Your task to perform on an android device: open chrome and create a bookmark for the current page Image 0: 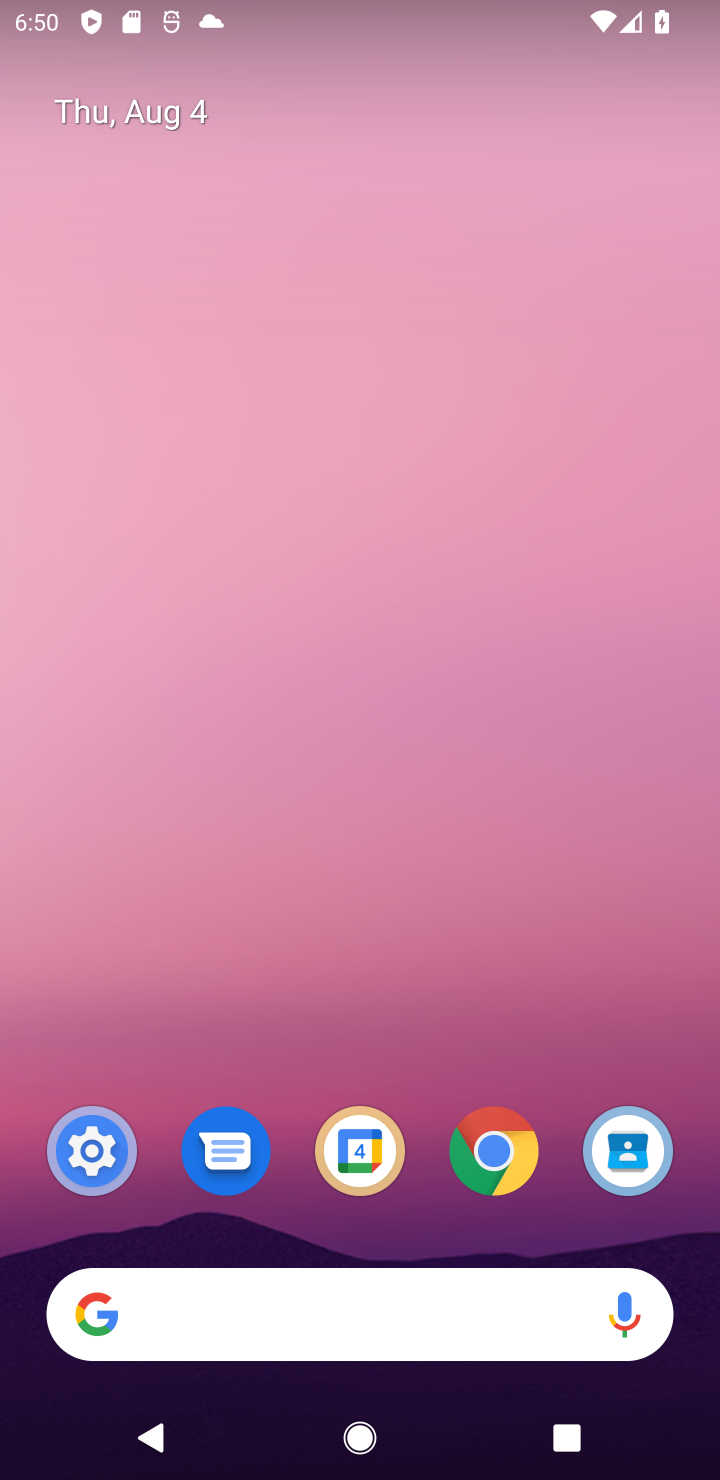
Step 0: click (514, 1165)
Your task to perform on an android device: open chrome and create a bookmark for the current page Image 1: 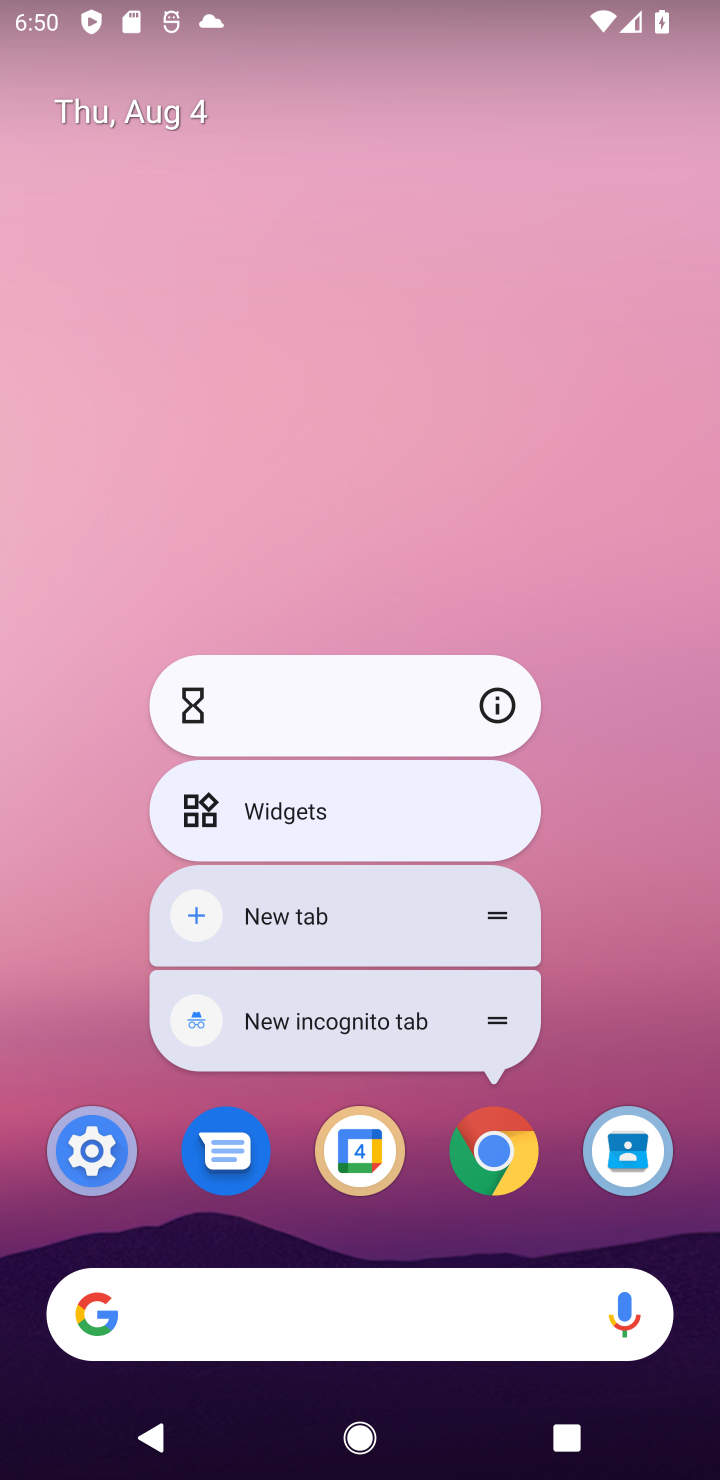
Step 1: click (480, 1151)
Your task to perform on an android device: open chrome and create a bookmark for the current page Image 2: 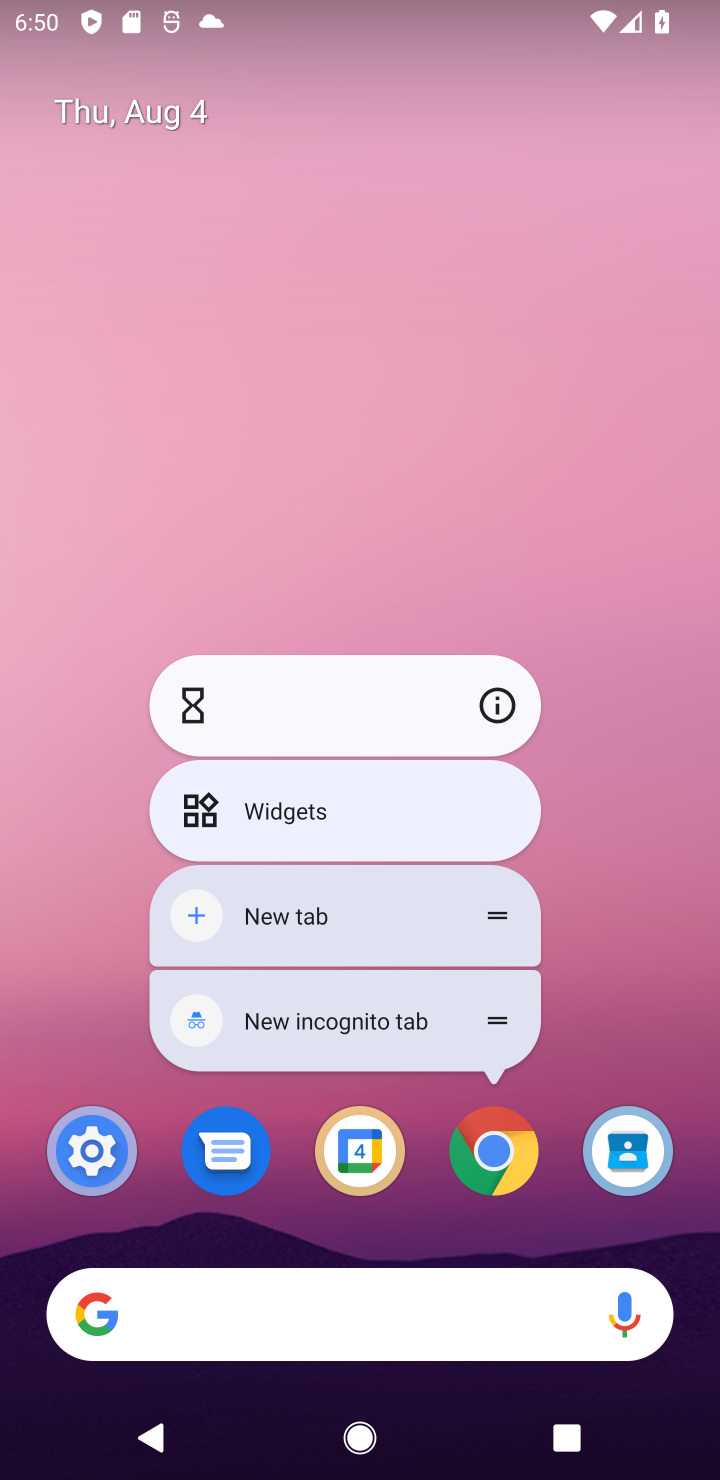
Step 2: click (478, 1153)
Your task to perform on an android device: open chrome and create a bookmark for the current page Image 3: 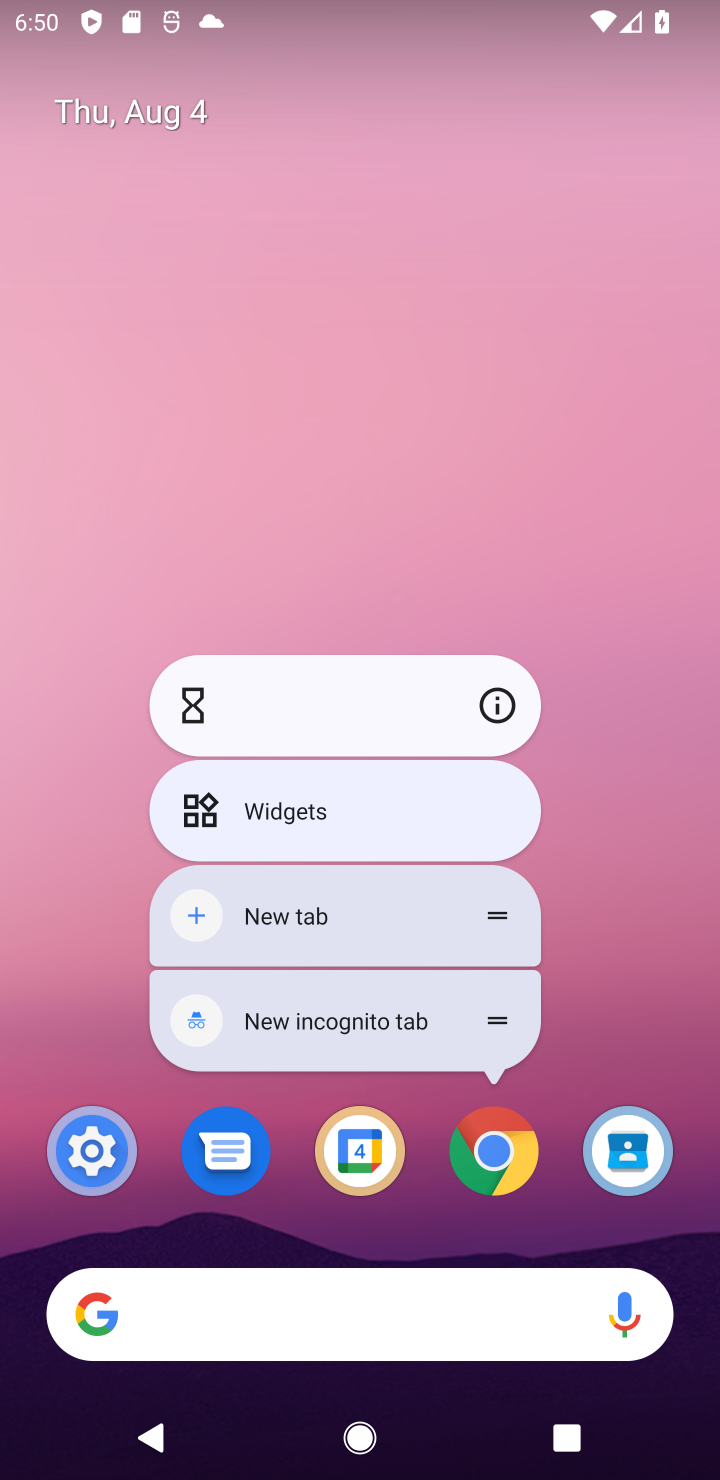
Step 3: click (510, 1147)
Your task to perform on an android device: open chrome and create a bookmark for the current page Image 4: 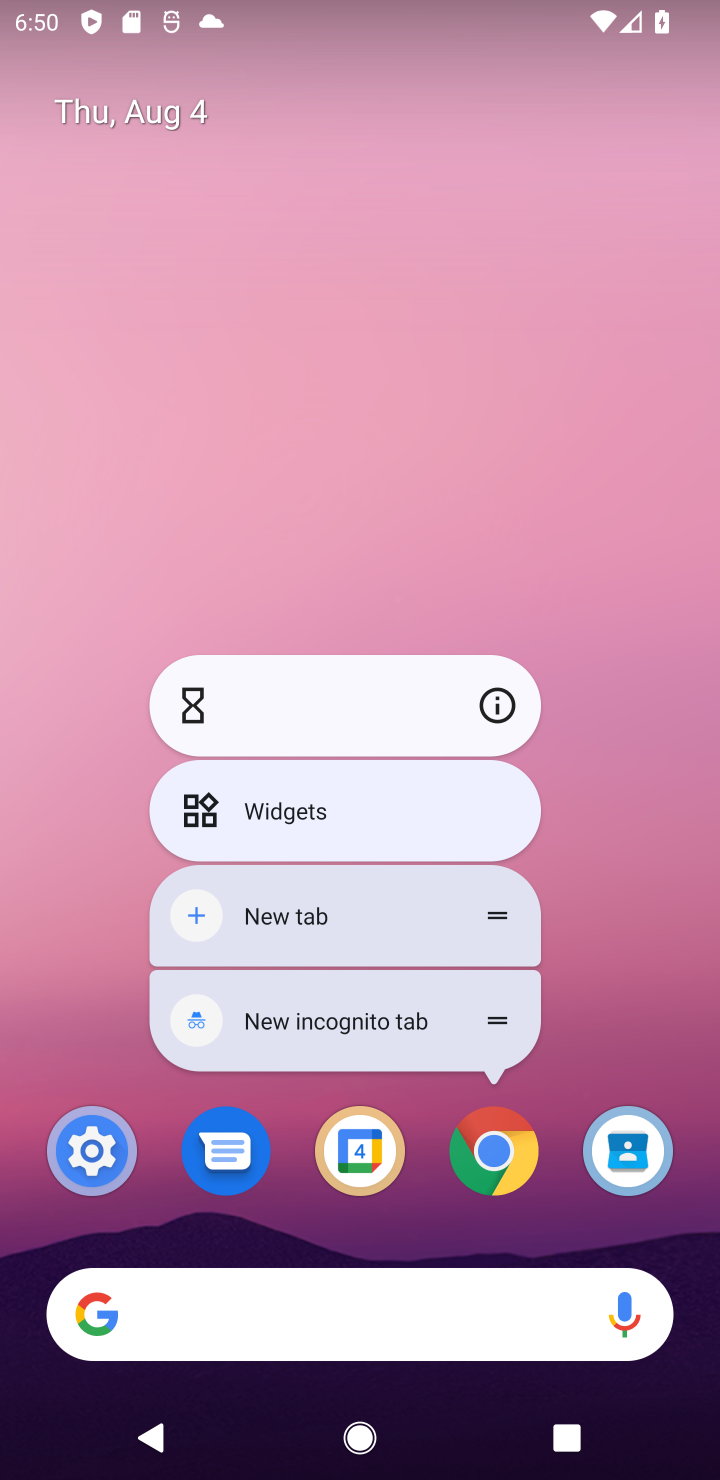
Step 4: click (522, 1155)
Your task to perform on an android device: open chrome and create a bookmark for the current page Image 5: 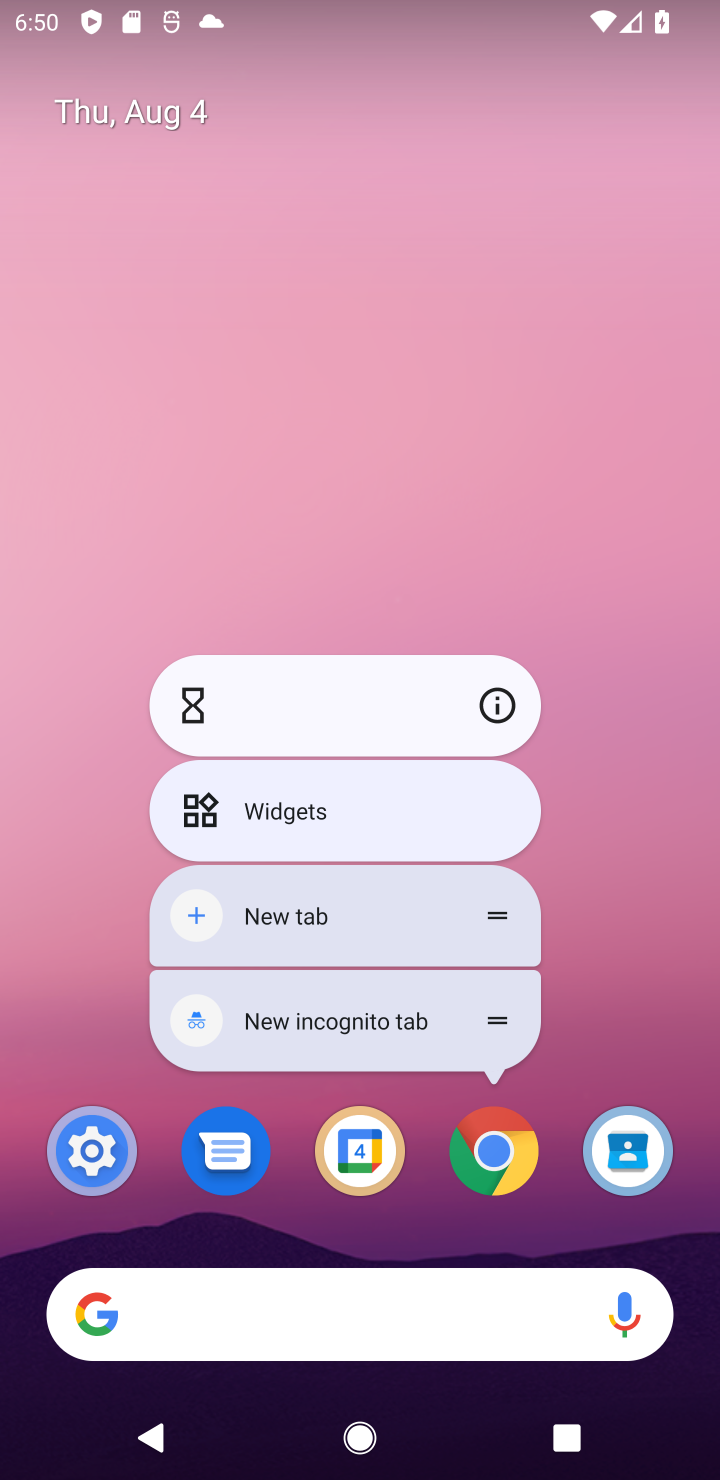
Step 5: click (524, 1155)
Your task to perform on an android device: open chrome and create a bookmark for the current page Image 6: 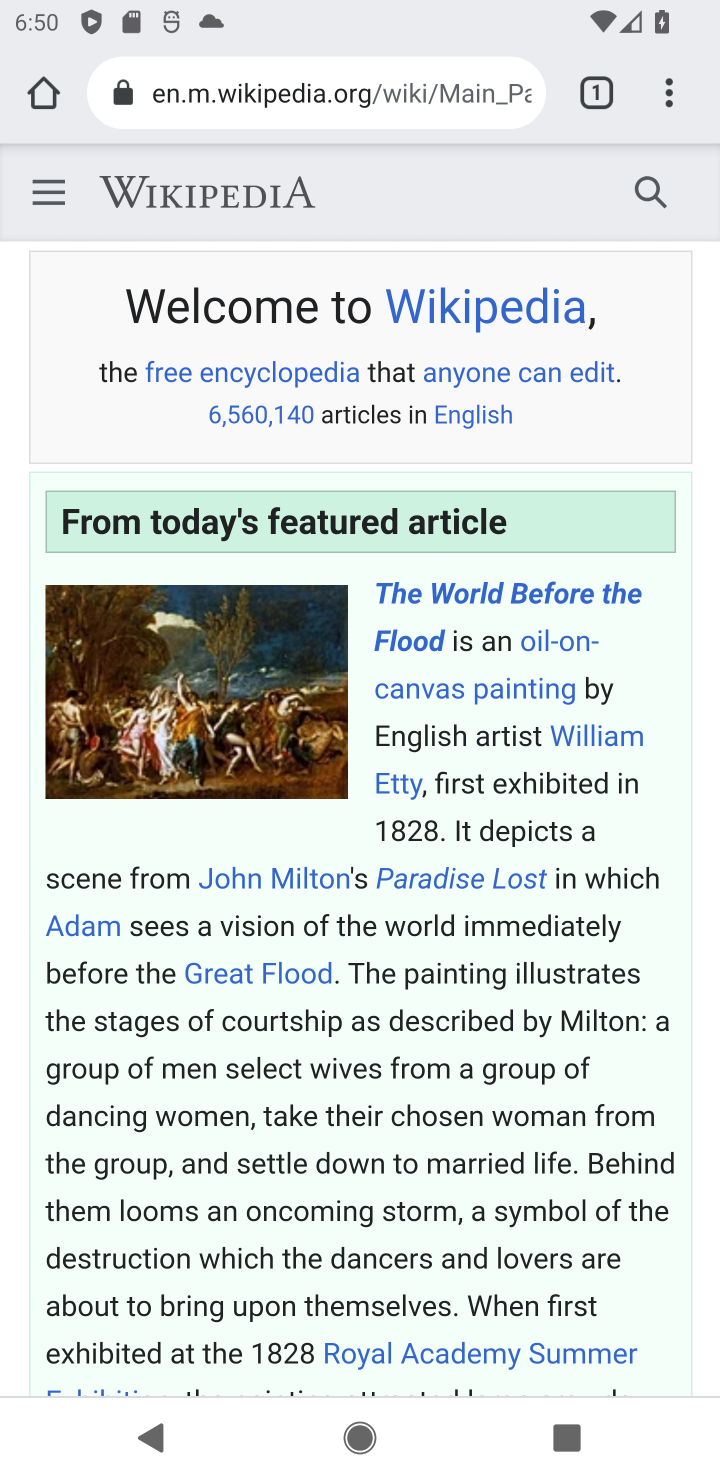
Step 6: click (668, 94)
Your task to perform on an android device: open chrome and create a bookmark for the current page Image 7: 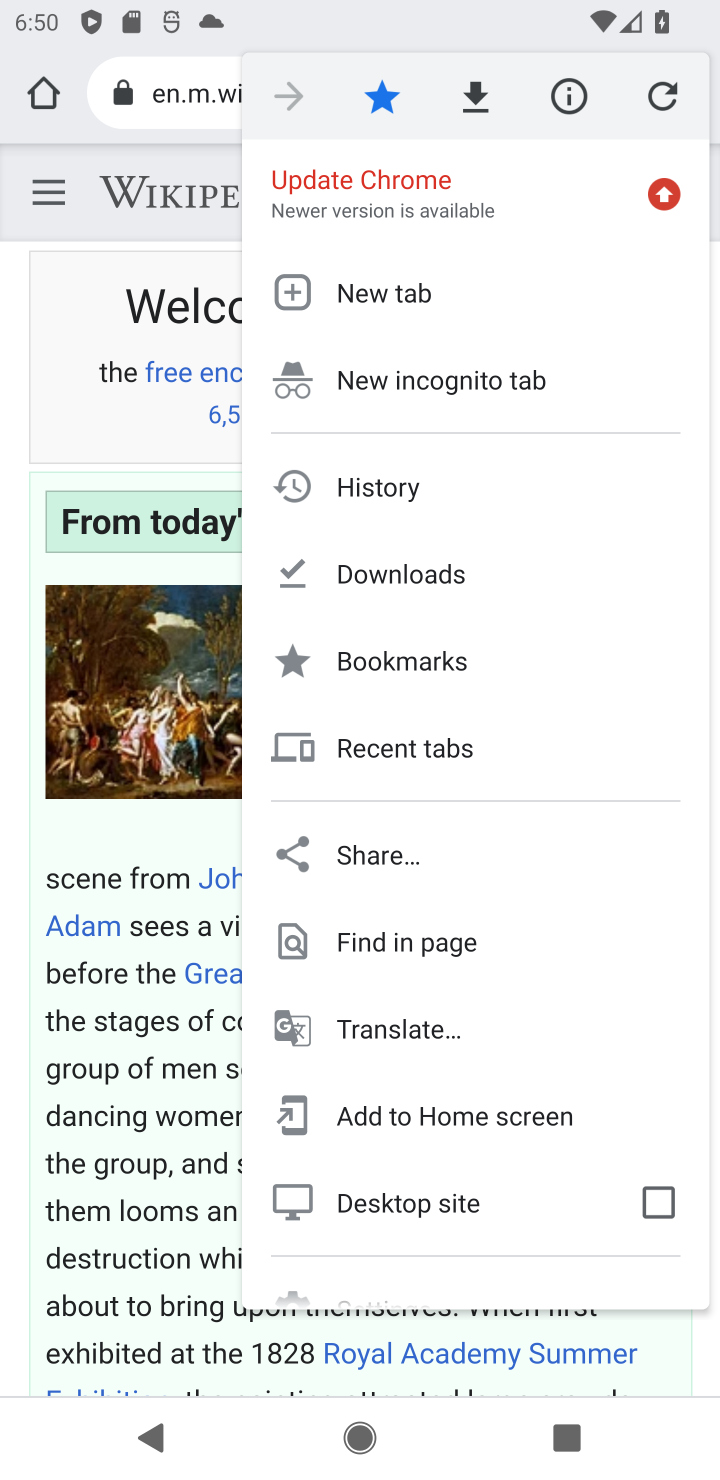
Step 7: task complete